Your task to perform on an android device: Play the last video I watched on Youtube Image 0: 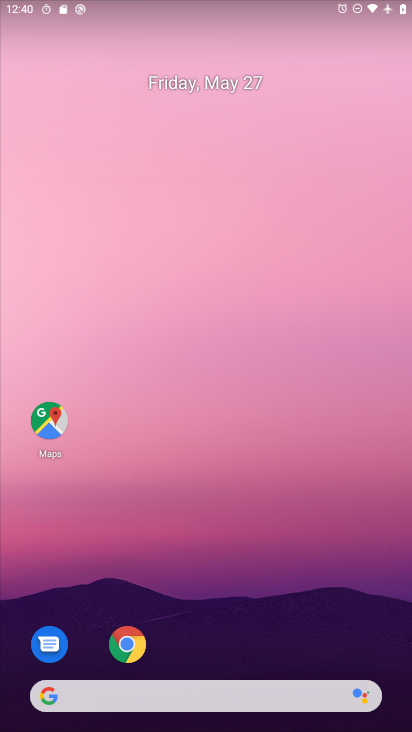
Step 0: drag from (208, 636) to (215, 134)
Your task to perform on an android device: Play the last video I watched on Youtube Image 1: 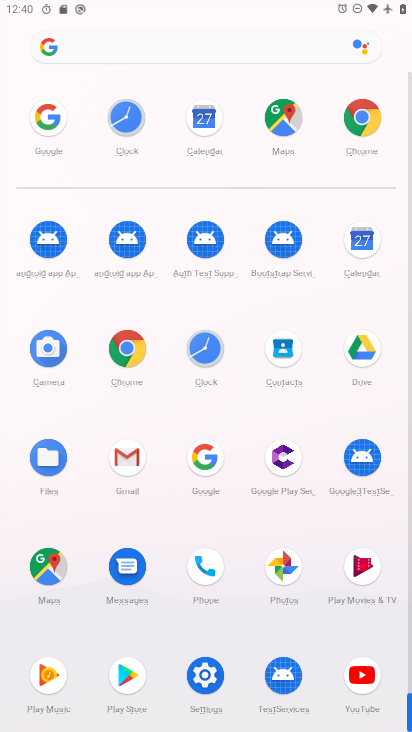
Step 1: click (351, 681)
Your task to perform on an android device: Play the last video I watched on Youtube Image 2: 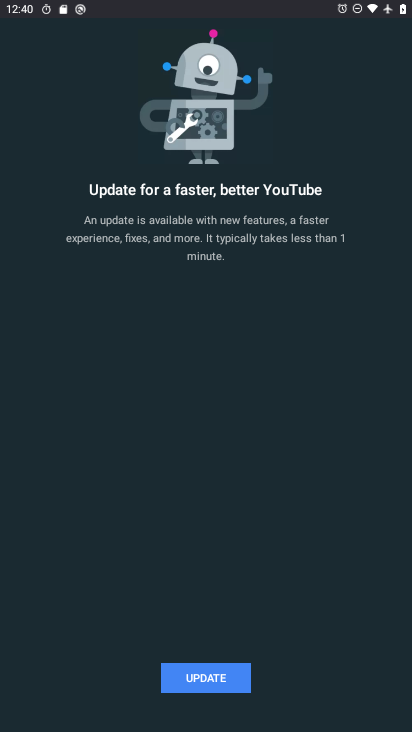
Step 2: press home button
Your task to perform on an android device: Play the last video I watched on Youtube Image 3: 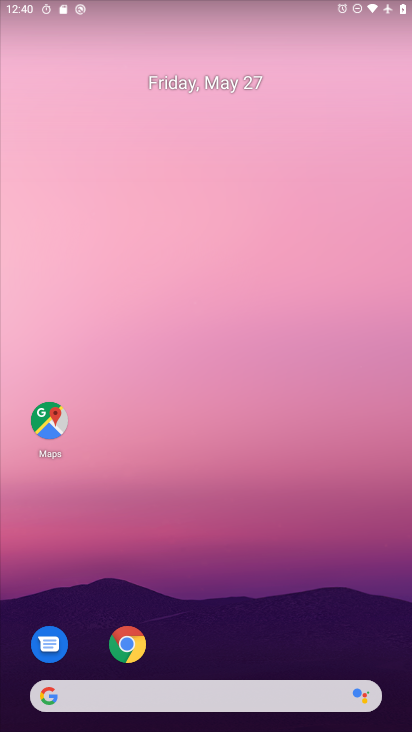
Step 3: drag from (204, 650) to (206, 300)
Your task to perform on an android device: Play the last video I watched on Youtube Image 4: 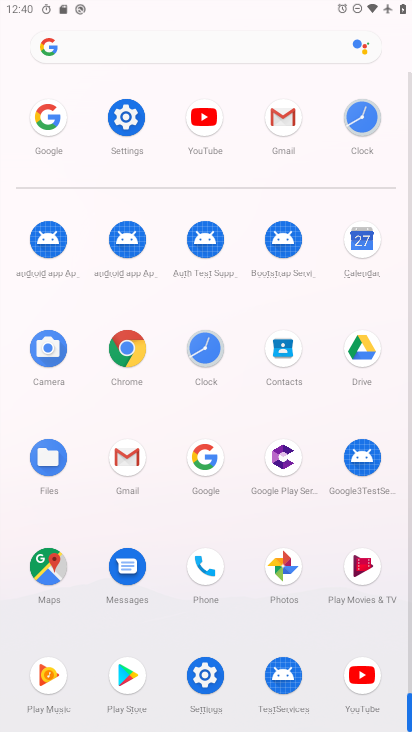
Step 4: click (215, 116)
Your task to perform on an android device: Play the last video I watched on Youtube Image 5: 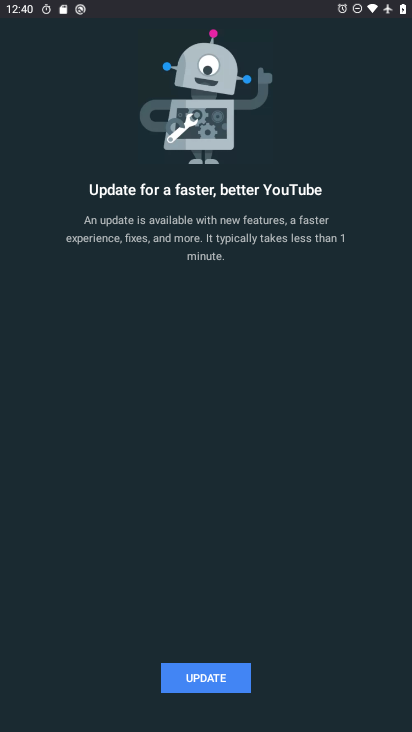
Step 5: click (206, 670)
Your task to perform on an android device: Play the last video I watched on Youtube Image 6: 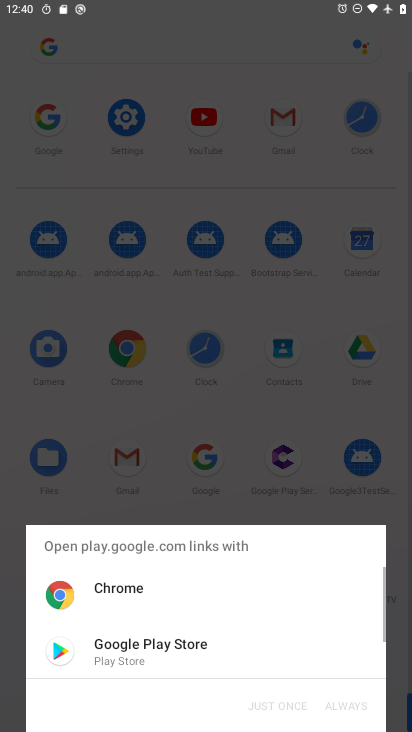
Step 6: click (164, 636)
Your task to perform on an android device: Play the last video I watched on Youtube Image 7: 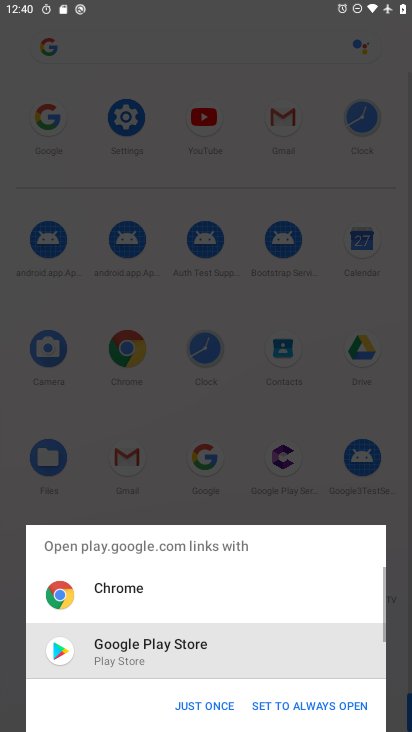
Step 7: click (224, 700)
Your task to perform on an android device: Play the last video I watched on Youtube Image 8: 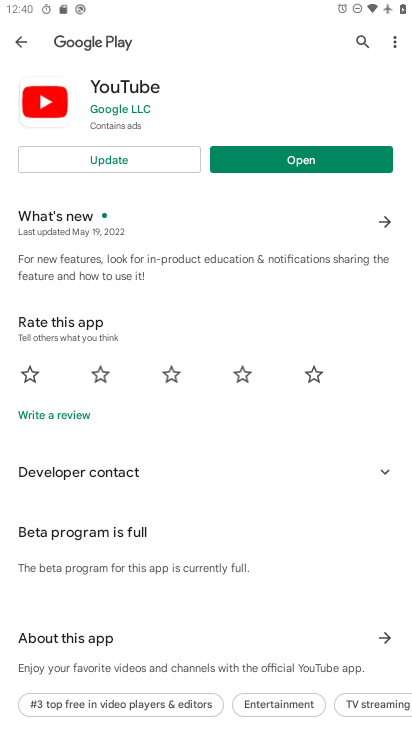
Step 8: click (115, 152)
Your task to perform on an android device: Play the last video I watched on Youtube Image 9: 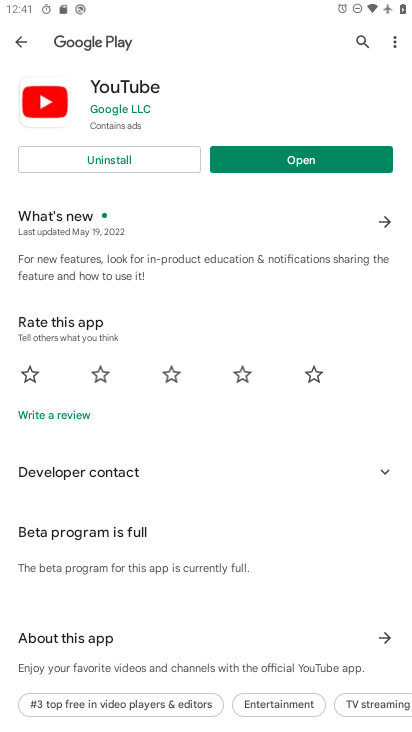
Step 9: click (286, 162)
Your task to perform on an android device: Play the last video I watched on Youtube Image 10: 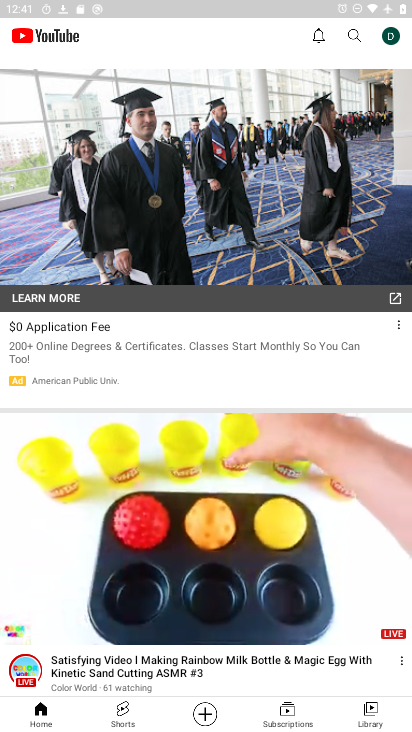
Step 10: click (370, 709)
Your task to perform on an android device: Play the last video I watched on Youtube Image 11: 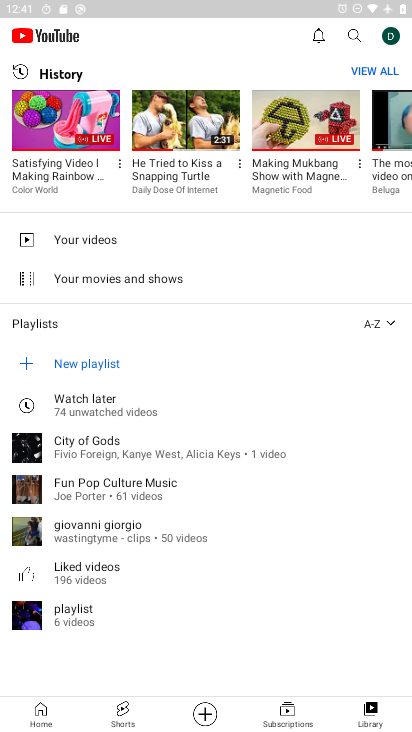
Step 11: drag from (108, 293) to (124, 460)
Your task to perform on an android device: Play the last video I watched on Youtube Image 12: 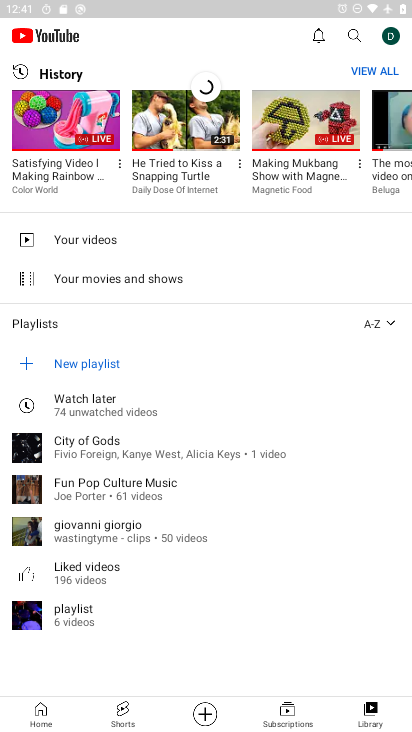
Step 12: click (86, 142)
Your task to perform on an android device: Play the last video I watched on Youtube Image 13: 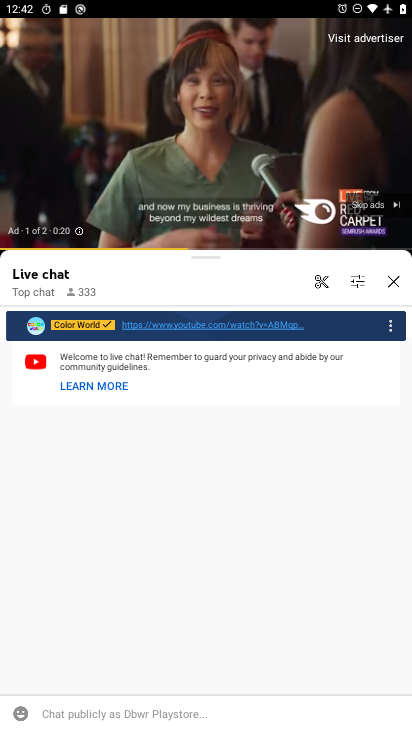
Step 13: task complete